Your task to perform on an android device: turn on the 12-hour format for clock Image 0: 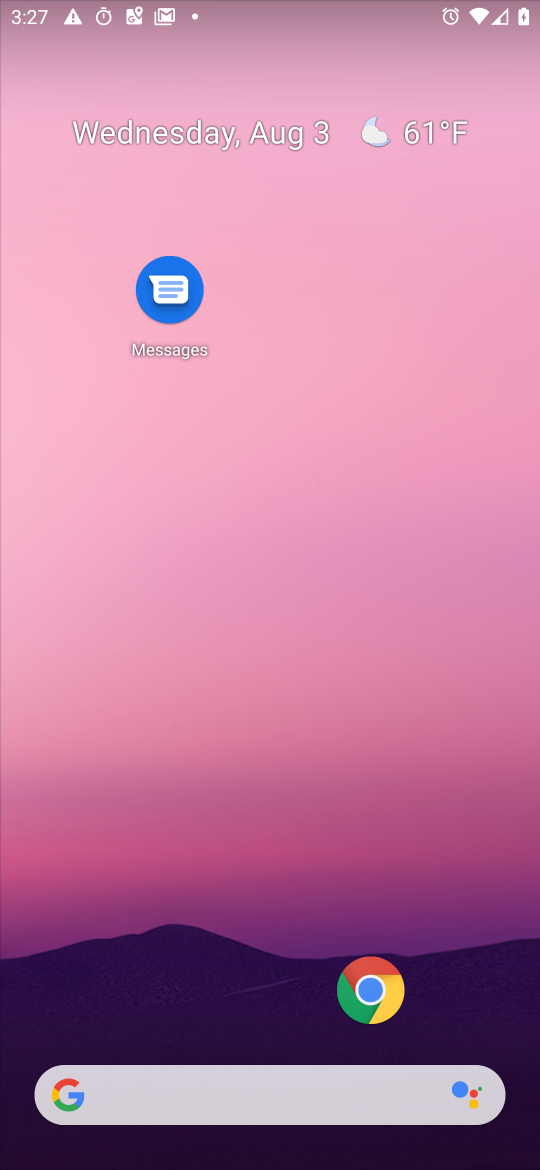
Step 0: press home button
Your task to perform on an android device: turn on the 12-hour format for clock Image 1: 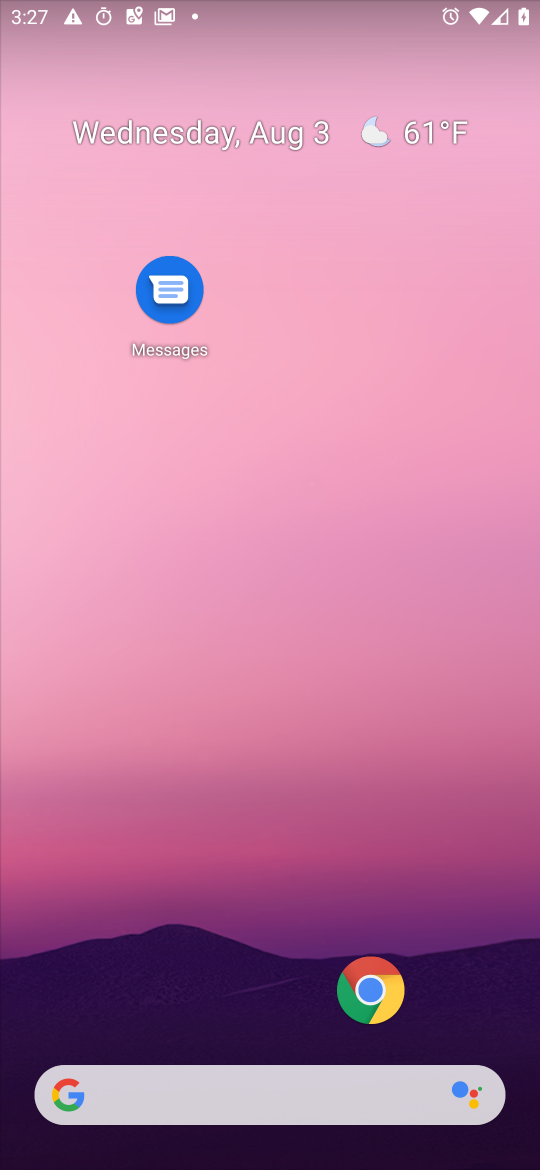
Step 1: drag from (270, 1078) to (261, 379)
Your task to perform on an android device: turn on the 12-hour format for clock Image 2: 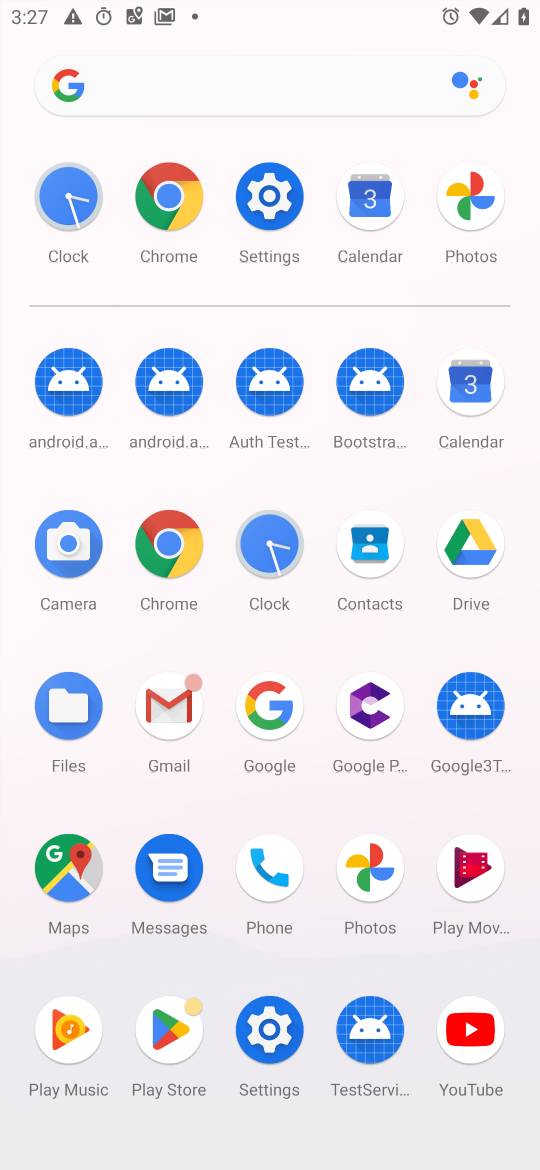
Step 2: click (232, 549)
Your task to perform on an android device: turn on the 12-hour format for clock Image 3: 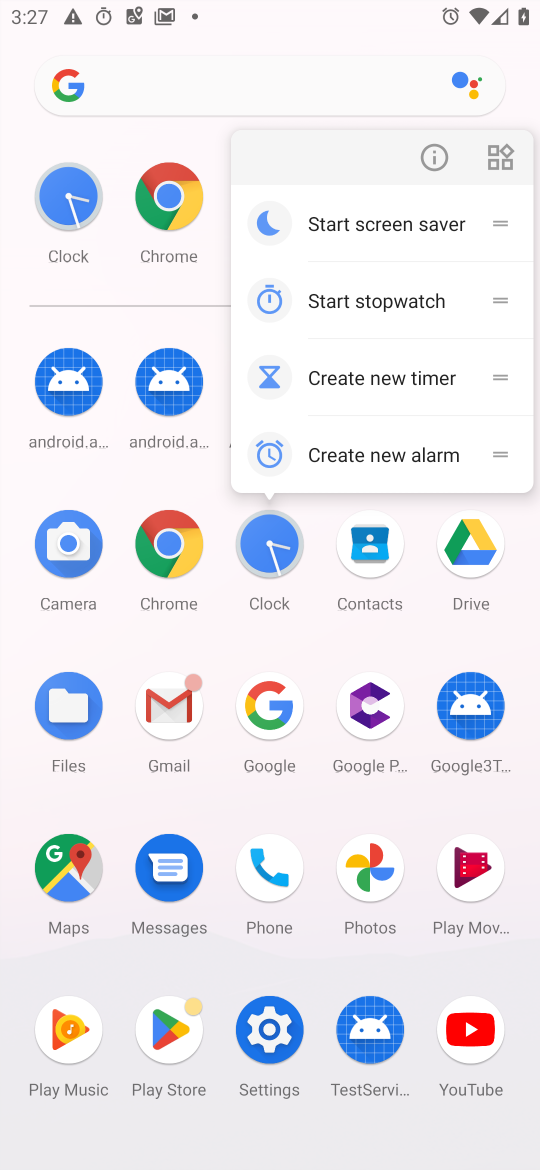
Step 3: click (253, 552)
Your task to perform on an android device: turn on the 12-hour format for clock Image 4: 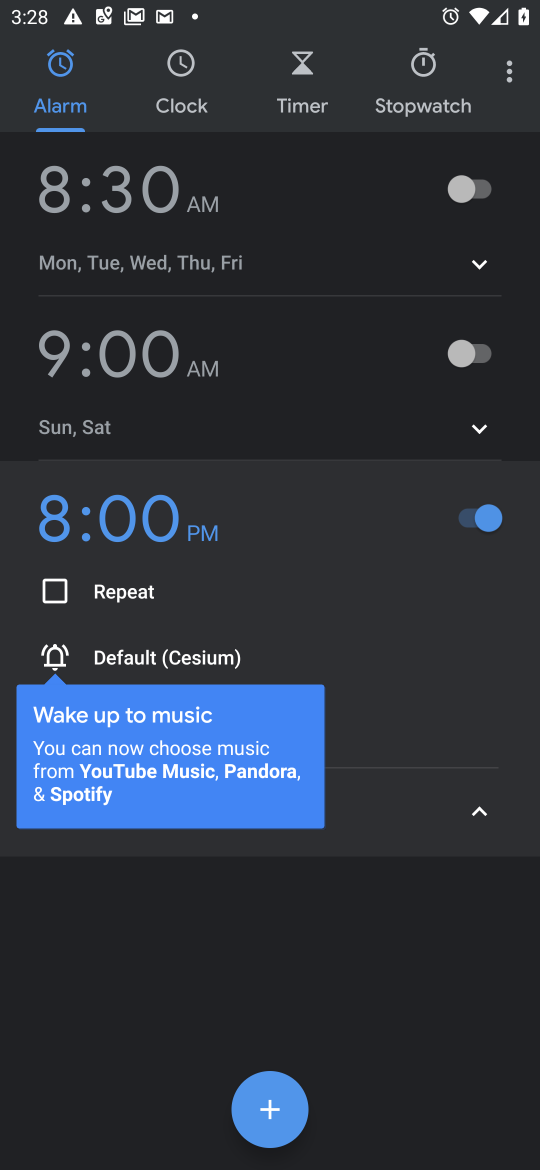
Step 4: click (509, 73)
Your task to perform on an android device: turn on the 12-hour format for clock Image 5: 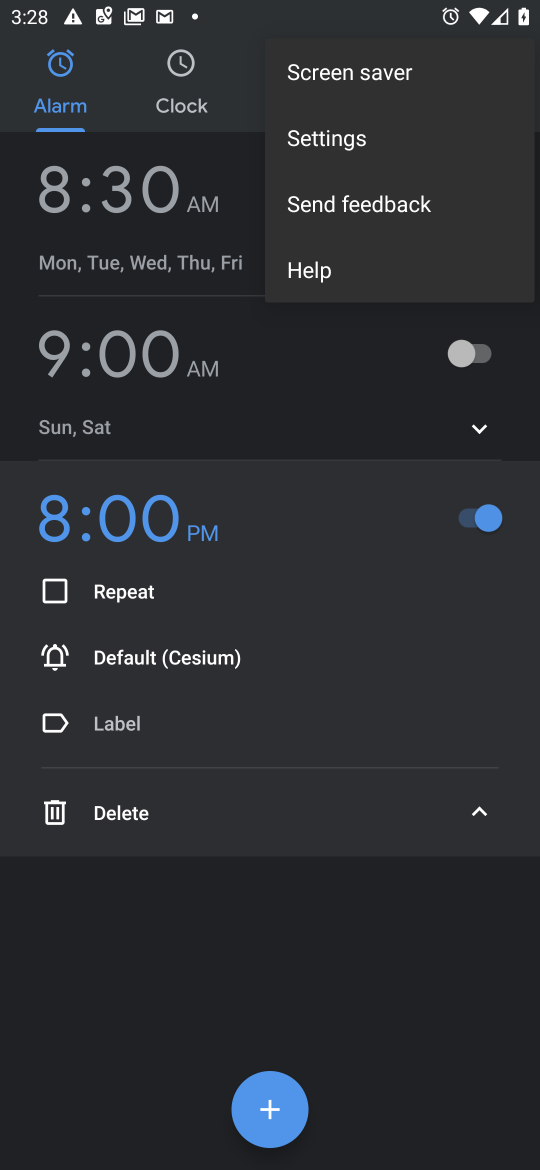
Step 5: click (350, 134)
Your task to perform on an android device: turn on the 12-hour format for clock Image 6: 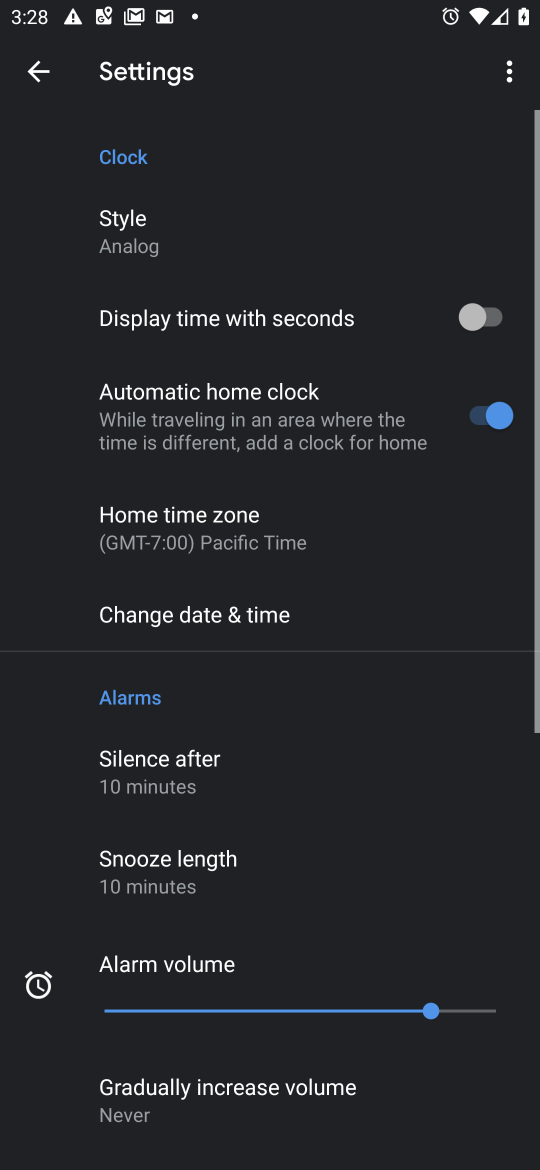
Step 6: drag from (236, 983) to (247, 359)
Your task to perform on an android device: turn on the 12-hour format for clock Image 7: 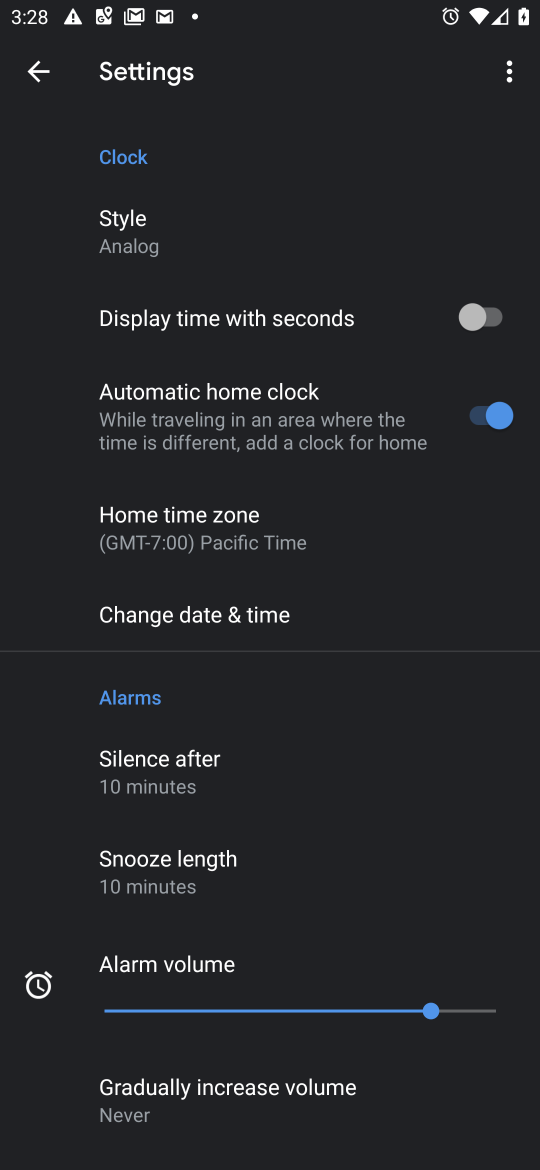
Step 7: drag from (196, 1103) to (196, 595)
Your task to perform on an android device: turn on the 12-hour format for clock Image 8: 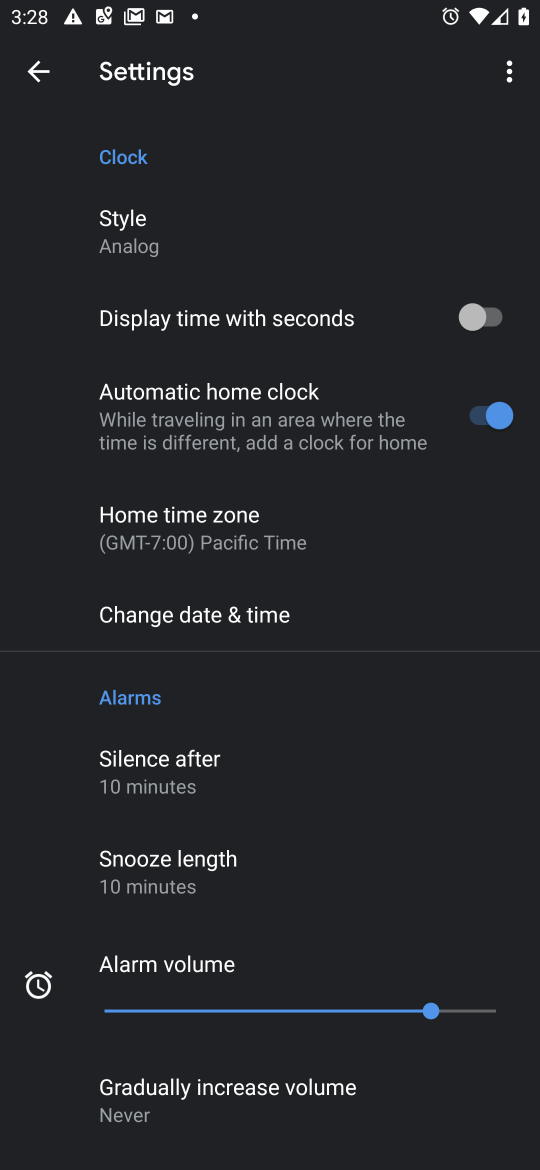
Step 8: click (191, 633)
Your task to perform on an android device: turn on the 12-hour format for clock Image 9: 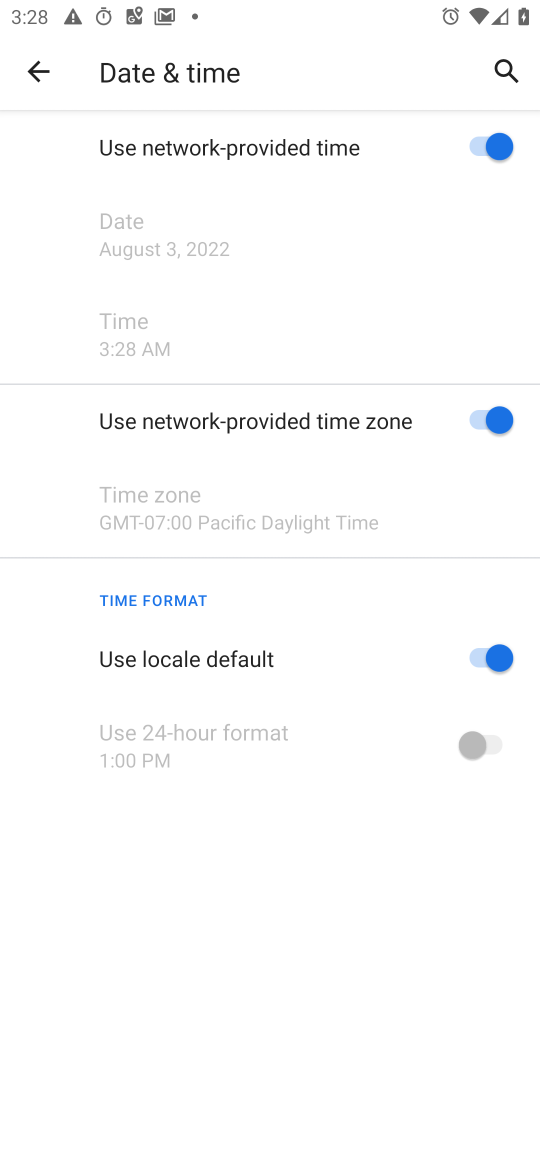
Step 9: task complete